Your task to perform on an android device: Open Google Maps and go to "Timeline" Image 0: 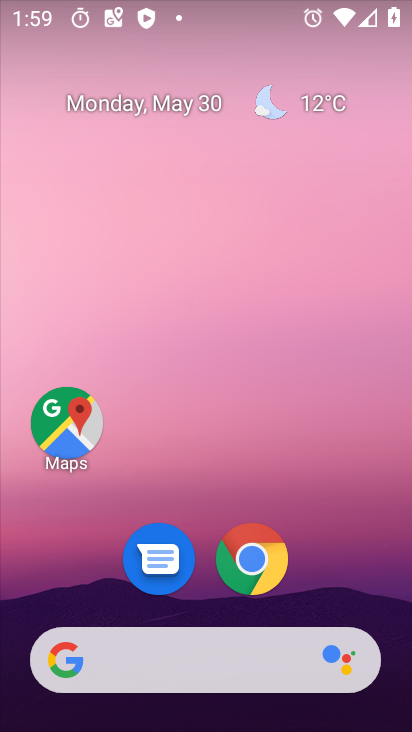
Step 0: click (68, 421)
Your task to perform on an android device: Open Google Maps and go to "Timeline" Image 1: 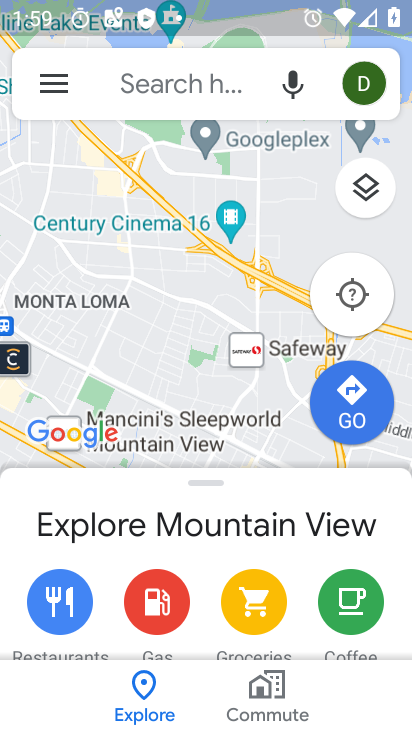
Step 1: click (63, 86)
Your task to perform on an android device: Open Google Maps and go to "Timeline" Image 2: 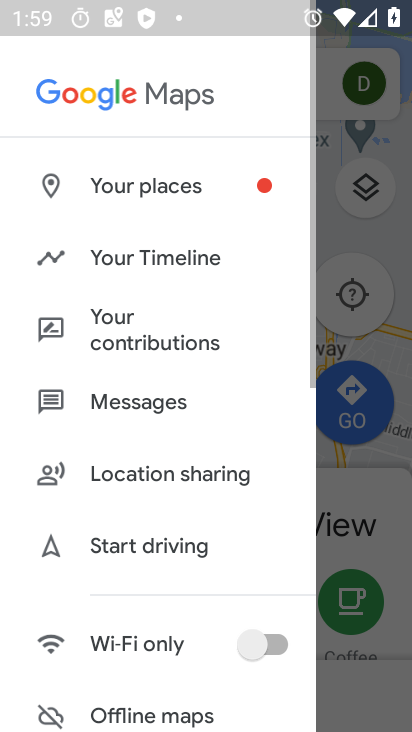
Step 2: click (142, 237)
Your task to perform on an android device: Open Google Maps and go to "Timeline" Image 3: 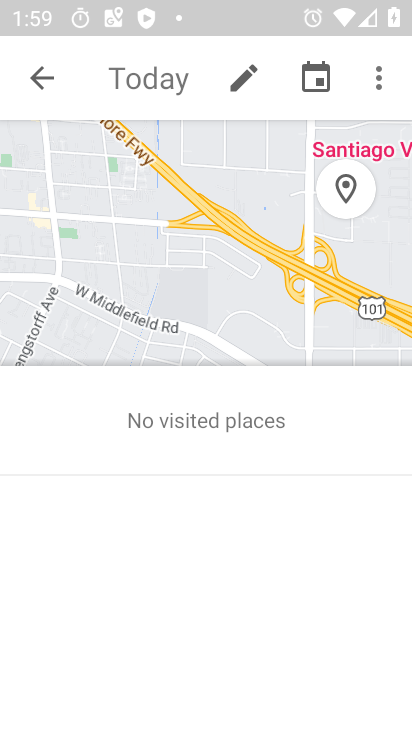
Step 3: task complete